Your task to perform on an android device: View the shopping cart on newegg.com. Search for asus rog on newegg.com, select the first entry, and add it to the cart. Image 0: 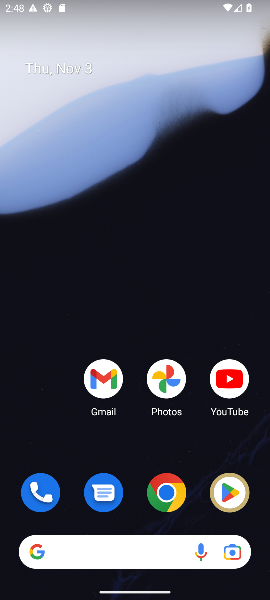
Step 0: click (164, 502)
Your task to perform on an android device: View the shopping cart on newegg.com. Search for asus rog on newegg.com, select the first entry, and add it to the cart. Image 1: 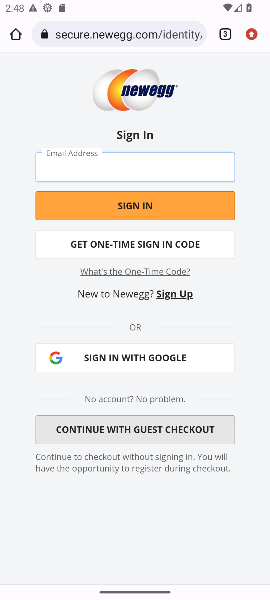
Step 1: click (101, 33)
Your task to perform on an android device: View the shopping cart on newegg.com. Search for asus rog on newegg.com, select the first entry, and add it to the cart. Image 2: 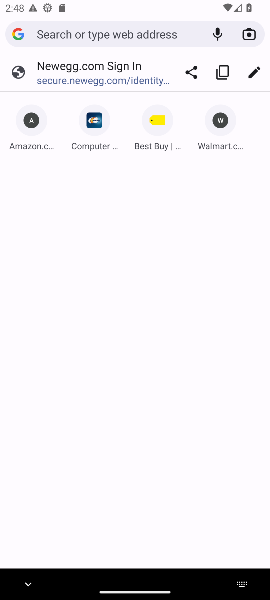
Step 2: type "newegg.com"
Your task to perform on an android device: View the shopping cart on newegg.com. Search for asus rog on newegg.com, select the first entry, and add it to the cart. Image 3: 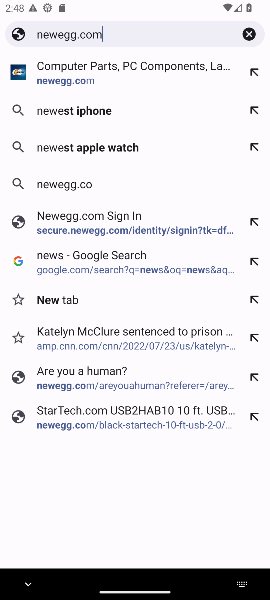
Step 3: type ""
Your task to perform on an android device: View the shopping cart on newegg.com. Search for asus rog on newegg.com, select the first entry, and add it to the cart. Image 4: 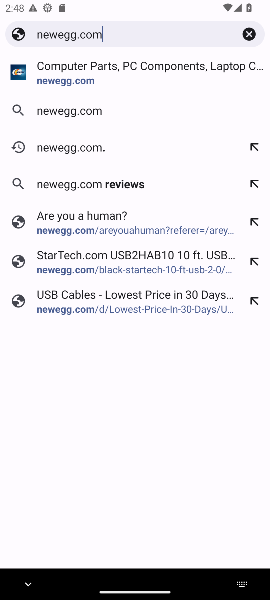
Step 4: click (122, 79)
Your task to perform on an android device: View the shopping cart on newegg.com. Search for asus rog on newegg.com, select the first entry, and add it to the cart. Image 5: 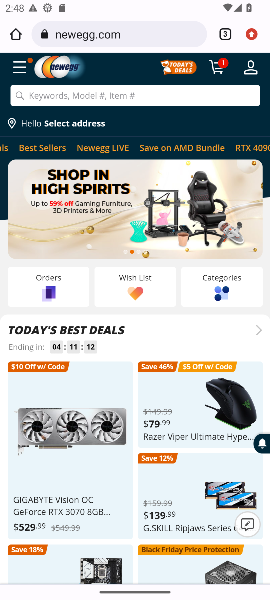
Step 5: click (105, 99)
Your task to perform on an android device: View the shopping cart on newegg.com. Search for asus rog on newegg.com, select the first entry, and add it to the cart. Image 6: 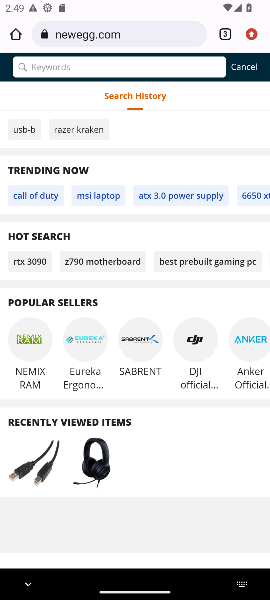
Step 6: type "asus rog"
Your task to perform on an android device: View the shopping cart on newegg.com. Search for asus rog on newegg.com, select the first entry, and add it to the cart. Image 7: 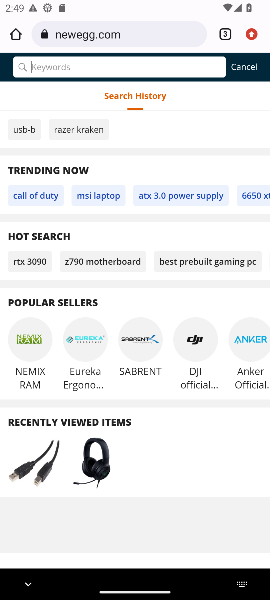
Step 7: type ""
Your task to perform on an android device: View the shopping cart on newegg.com. Search for asus rog on newegg.com, select the first entry, and add it to the cart. Image 8: 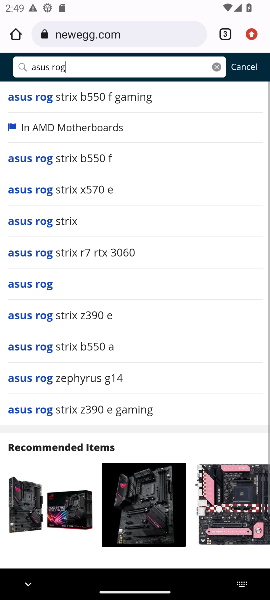
Step 8: click (129, 98)
Your task to perform on an android device: View the shopping cart on newegg.com. Search for asus rog on newegg.com, select the first entry, and add it to the cart. Image 9: 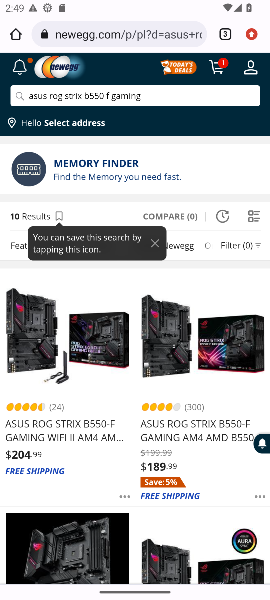
Step 9: click (98, 348)
Your task to perform on an android device: View the shopping cart on newegg.com. Search for asus rog on newegg.com, select the first entry, and add it to the cart. Image 10: 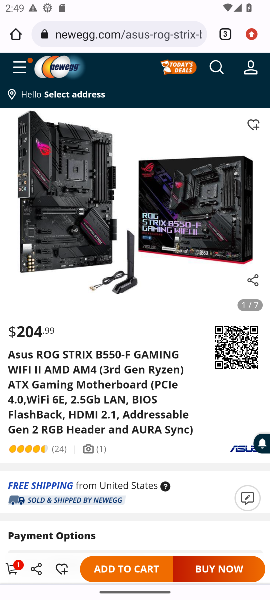
Step 10: click (128, 568)
Your task to perform on an android device: View the shopping cart on newegg.com. Search for asus rog on newegg.com, select the first entry, and add it to the cart. Image 11: 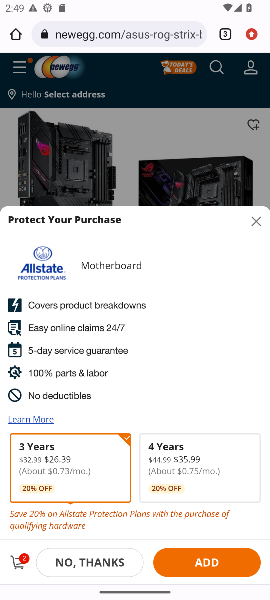
Step 11: click (65, 574)
Your task to perform on an android device: View the shopping cart on newegg.com. Search for asus rog on newegg.com, select the first entry, and add it to the cart. Image 12: 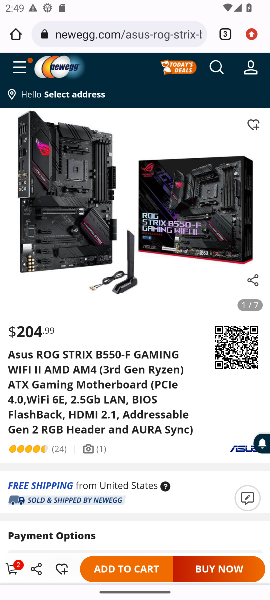
Step 12: click (4, 564)
Your task to perform on an android device: View the shopping cart on newegg.com. Search for asus rog on newegg.com, select the first entry, and add it to the cart. Image 13: 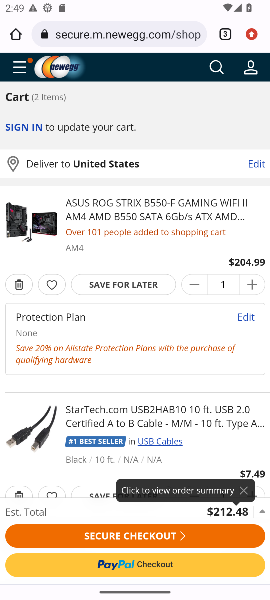
Step 13: click (81, 545)
Your task to perform on an android device: View the shopping cart on newegg.com. Search for asus rog on newegg.com, select the first entry, and add it to the cart. Image 14: 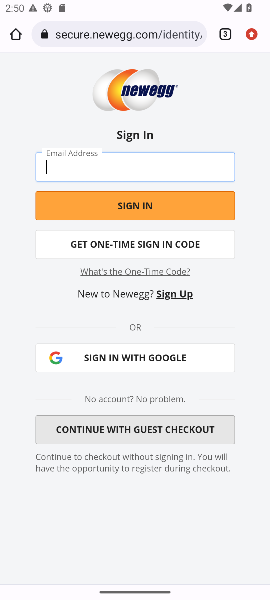
Step 14: click (101, 36)
Your task to perform on an android device: View the shopping cart on newegg.com. Search for asus rog on newegg.com, select the first entry, and add it to the cart. Image 15: 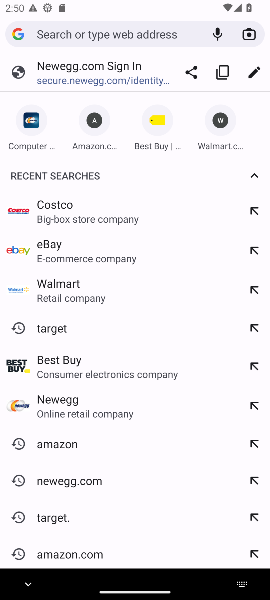
Step 15: type "newegg.com"
Your task to perform on an android device: View the shopping cart on newegg.com. Search for asus rog on newegg.com, select the first entry, and add it to the cart. Image 16: 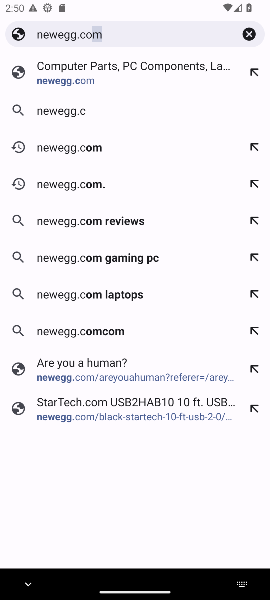
Step 16: type ""
Your task to perform on an android device: View the shopping cart on newegg.com. Search for asus rog on newegg.com, select the first entry, and add it to the cart. Image 17: 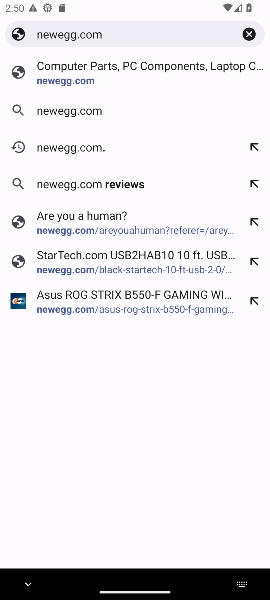
Step 17: click (122, 74)
Your task to perform on an android device: View the shopping cart on newegg.com. Search for asus rog on newegg.com, select the first entry, and add it to the cart. Image 18: 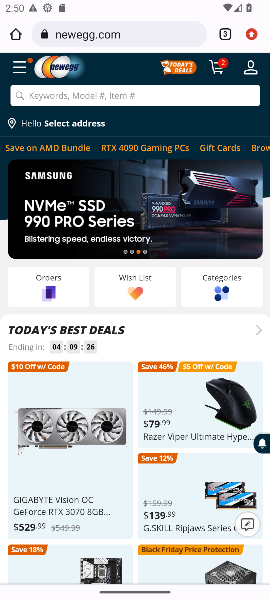
Step 18: click (116, 88)
Your task to perform on an android device: View the shopping cart on newegg.com. Search for asus rog on newegg.com, select the first entry, and add it to the cart. Image 19: 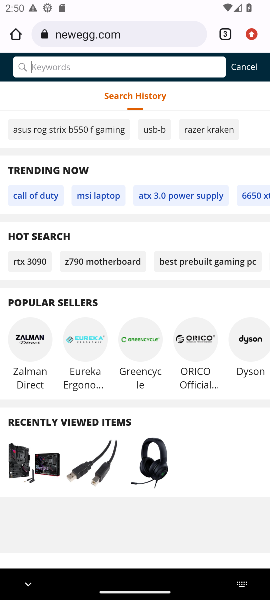
Step 19: type "asus rog"
Your task to perform on an android device: View the shopping cart on newegg.com. Search for asus rog on newegg.com, select the first entry, and add it to the cart. Image 20: 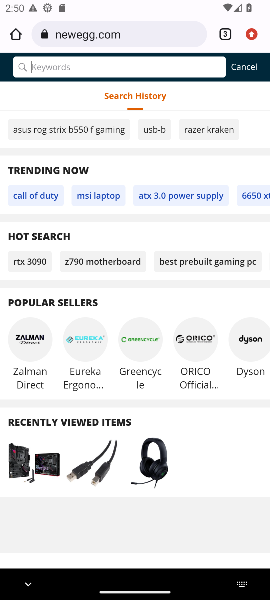
Step 20: type ""
Your task to perform on an android device: View the shopping cart on newegg.com. Search for asus rog on newegg.com, select the first entry, and add it to the cart. Image 21: 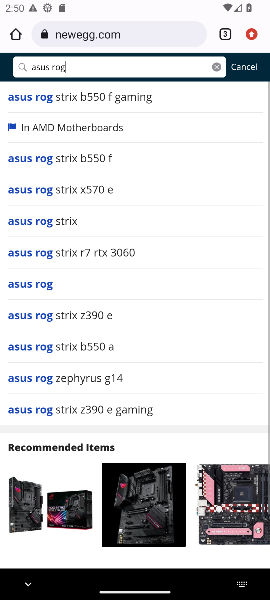
Step 21: click (103, 102)
Your task to perform on an android device: View the shopping cart on newegg.com. Search for asus rog on newegg.com, select the first entry, and add it to the cart. Image 22: 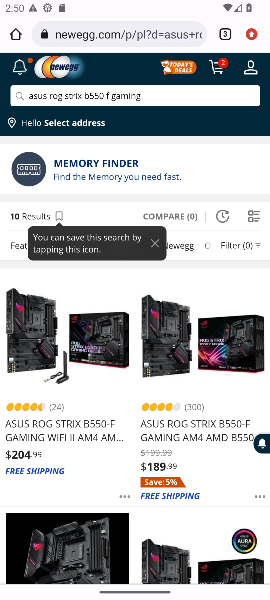
Step 22: click (96, 377)
Your task to perform on an android device: View the shopping cart on newegg.com. Search for asus rog on newegg.com, select the first entry, and add it to the cart. Image 23: 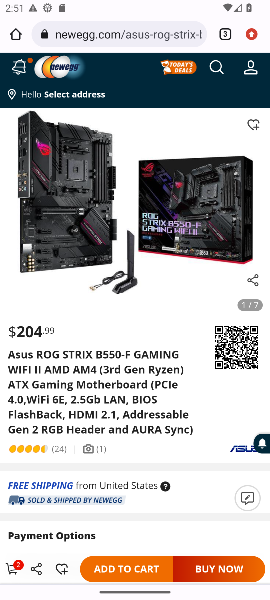
Step 23: click (124, 564)
Your task to perform on an android device: View the shopping cart on newegg.com. Search for asus rog on newegg.com, select the first entry, and add it to the cart. Image 24: 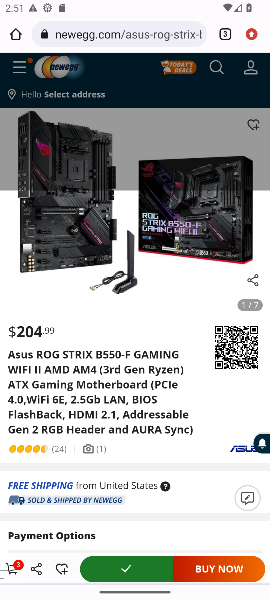
Step 24: click (87, 565)
Your task to perform on an android device: View the shopping cart on newegg.com. Search for asus rog on newegg.com, select the first entry, and add it to the cart. Image 25: 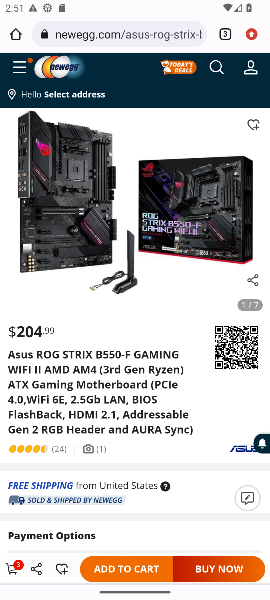
Step 25: task complete